Your task to perform on an android device: Open display settings Image 0: 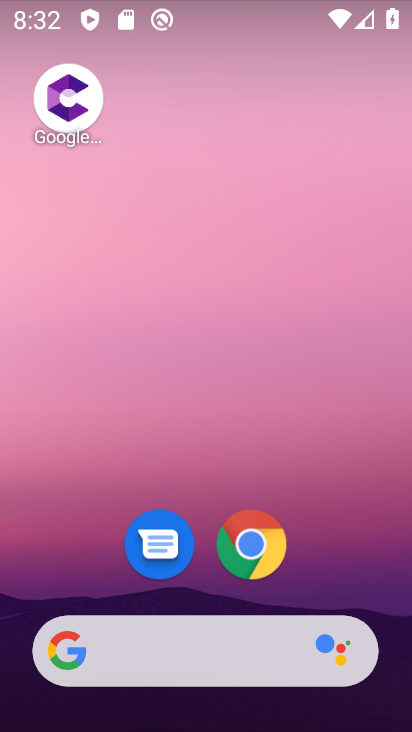
Step 0: drag from (206, 626) to (116, 0)
Your task to perform on an android device: Open display settings Image 1: 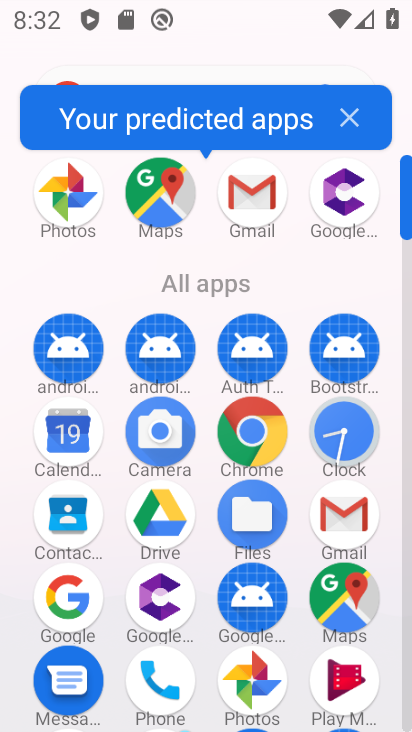
Step 1: drag from (299, 565) to (297, 111)
Your task to perform on an android device: Open display settings Image 2: 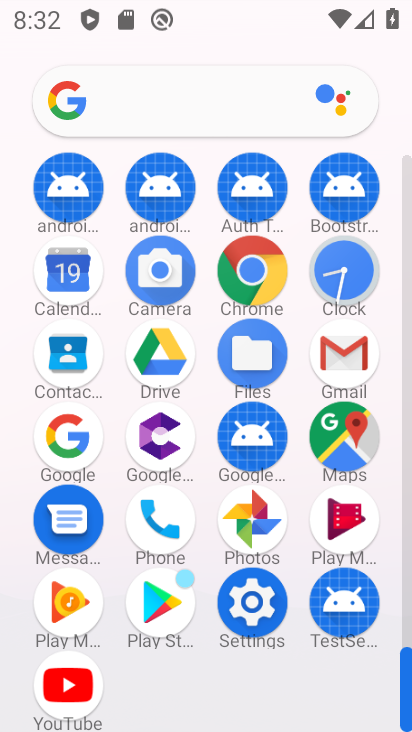
Step 2: drag from (251, 547) to (241, 148)
Your task to perform on an android device: Open display settings Image 3: 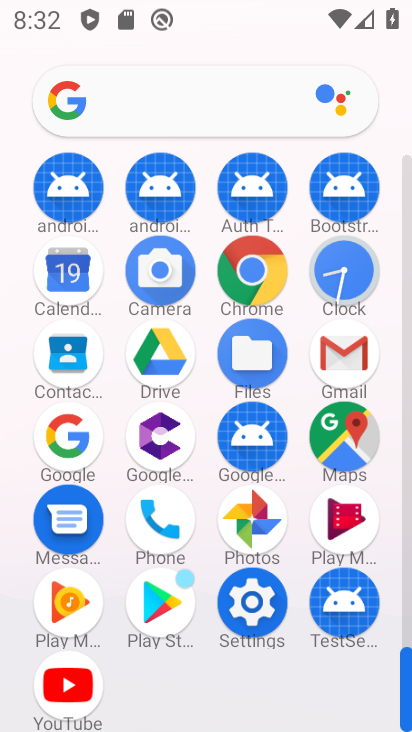
Step 3: click (262, 628)
Your task to perform on an android device: Open display settings Image 4: 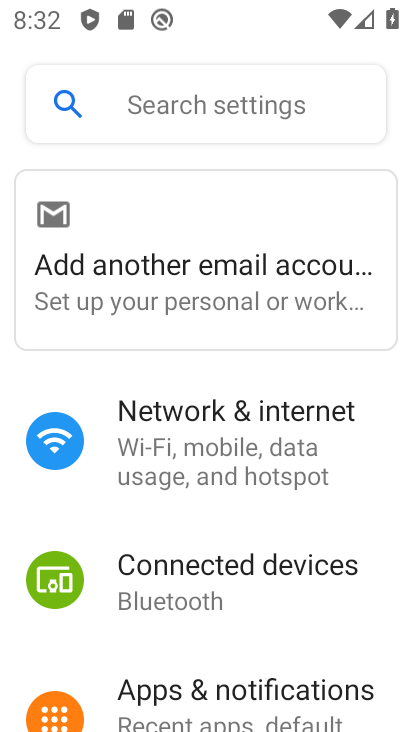
Step 4: drag from (262, 712) to (250, 155)
Your task to perform on an android device: Open display settings Image 5: 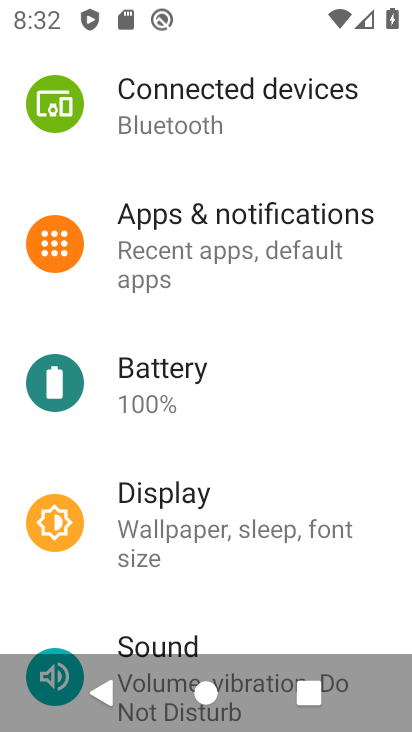
Step 5: click (203, 514)
Your task to perform on an android device: Open display settings Image 6: 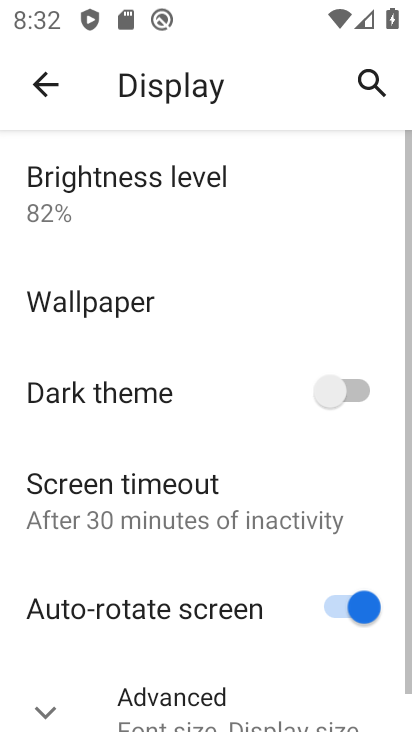
Step 6: task complete